Your task to perform on an android device: How much does a 3 bedroom apartment rent for in Austin? Image 0: 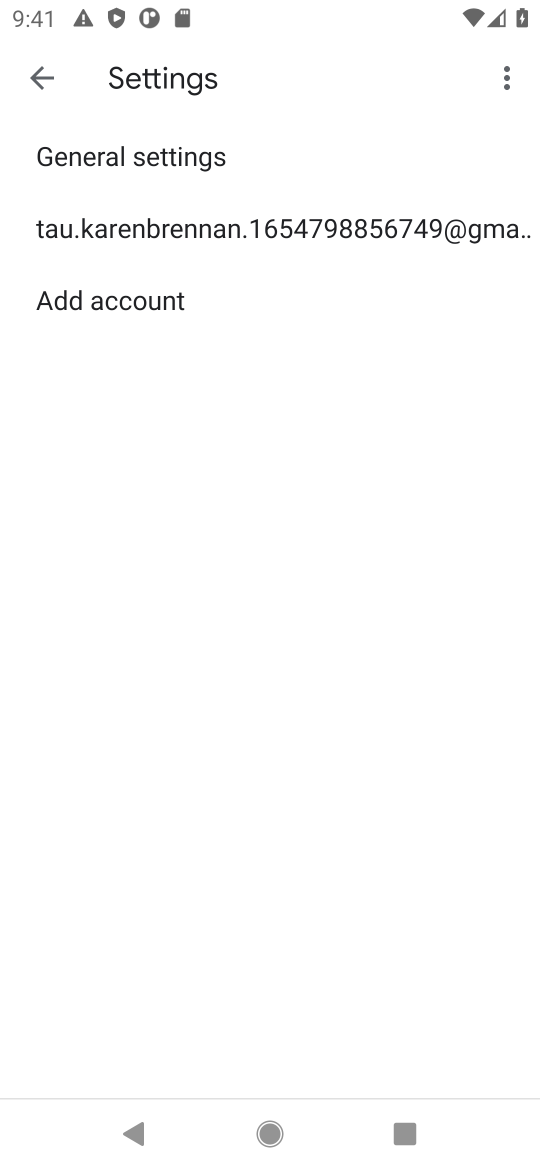
Step 0: press home button
Your task to perform on an android device: How much does a 3 bedroom apartment rent for in Austin? Image 1: 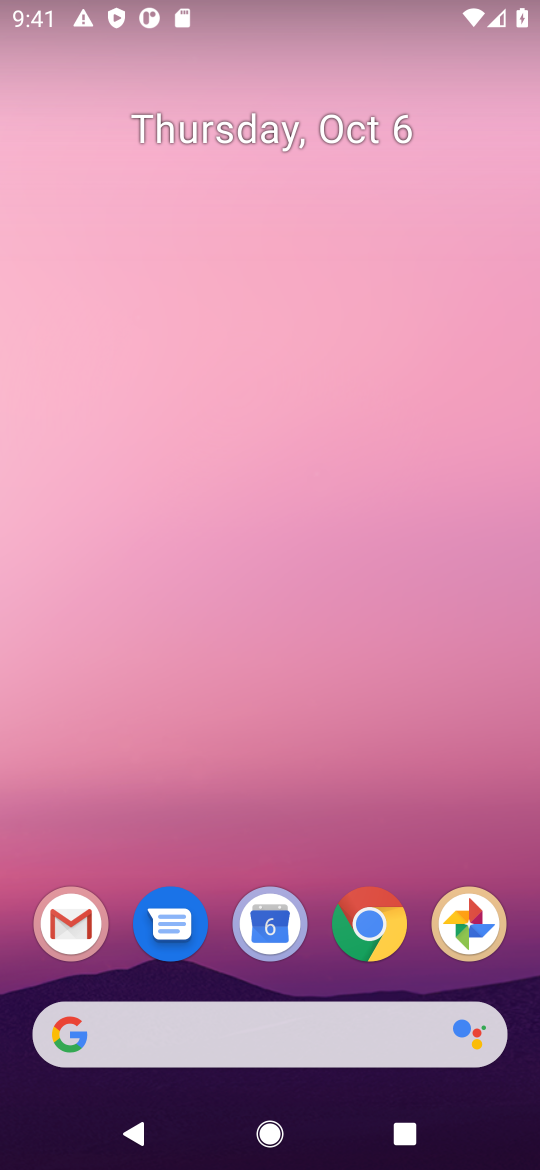
Step 1: click (378, 918)
Your task to perform on an android device: How much does a 3 bedroom apartment rent for in Austin? Image 2: 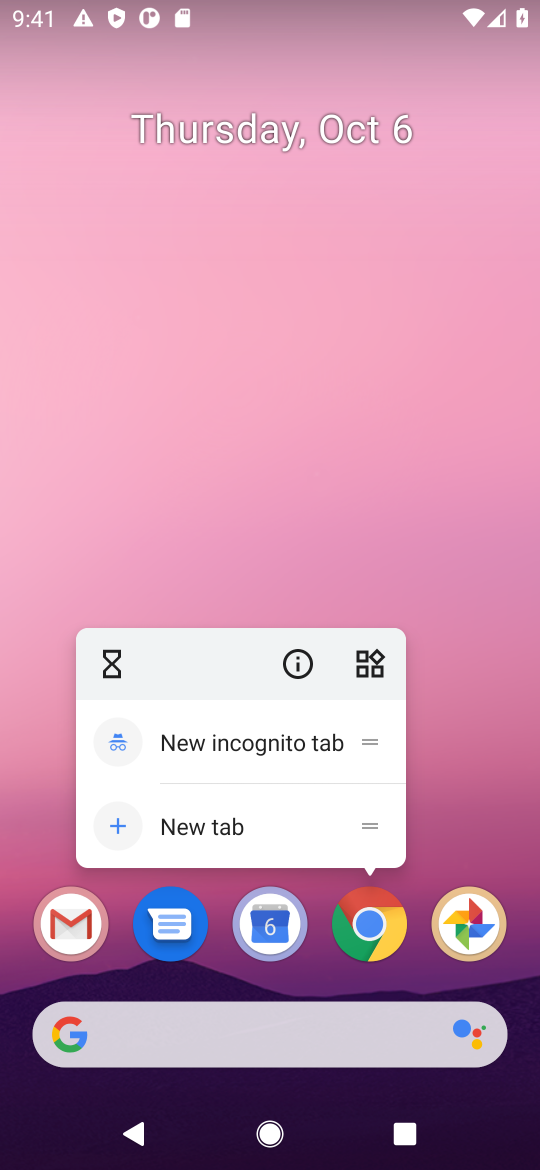
Step 2: click (370, 933)
Your task to perform on an android device: How much does a 3 bedroom apartment rent for in Austin? Image 3: 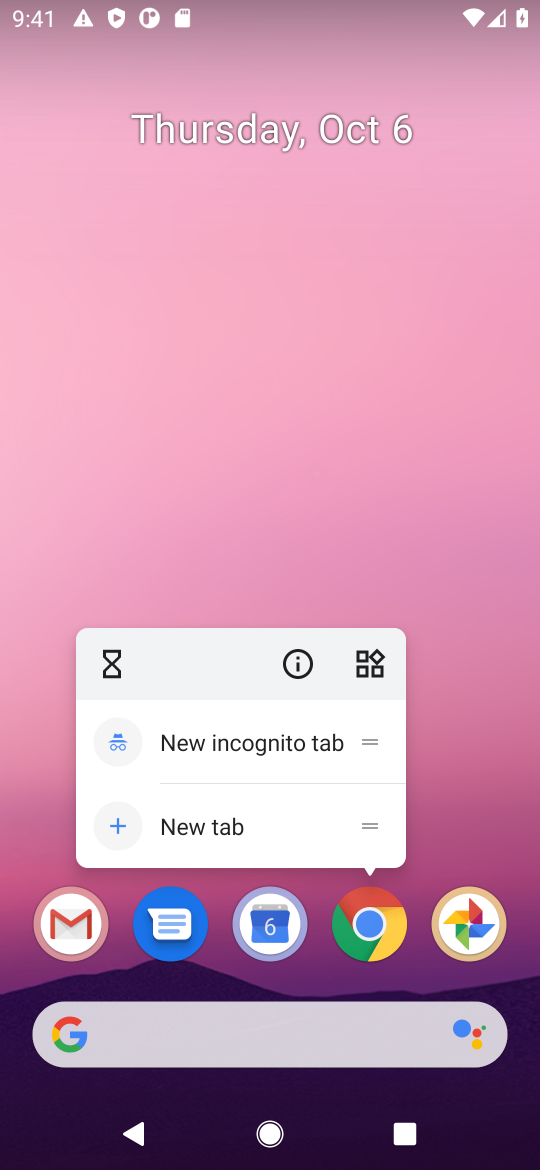
Step 3: click (370, 933)
Your task to perform on an android device: How much does a 3 bedroom apartment rent for in Austin? Image 4: 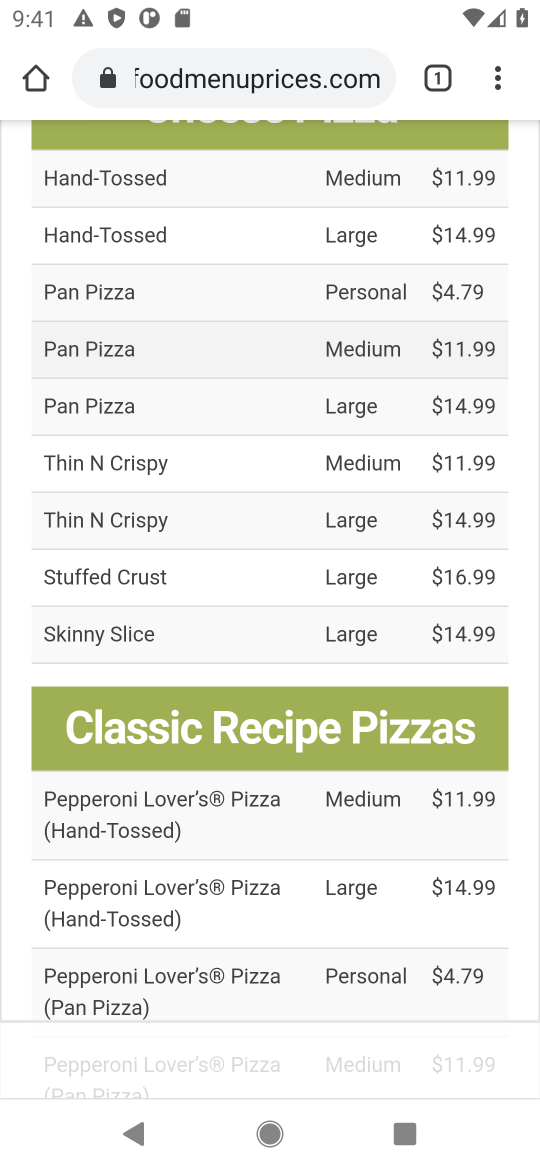
Step 4: click (357, 881)
Your task to perform on an android device: How much does a 3 bedroom apartment rent for in Austin? Image 5: 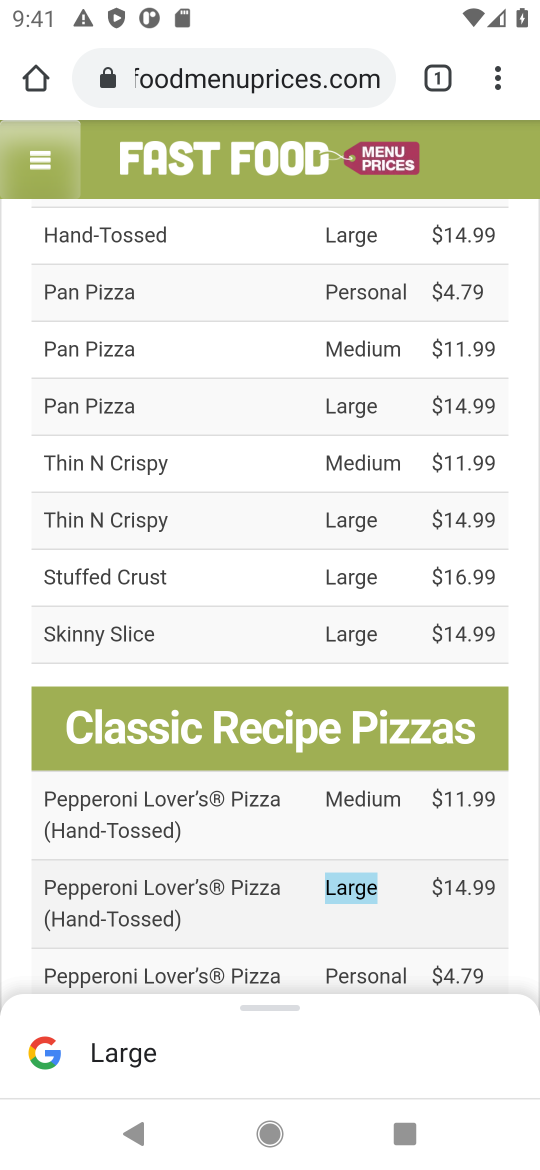
Step 5: click (288, 81)
Your task to perform on an android device: How much does a 3 bedroom apartment rent for in Austin? Image 6: 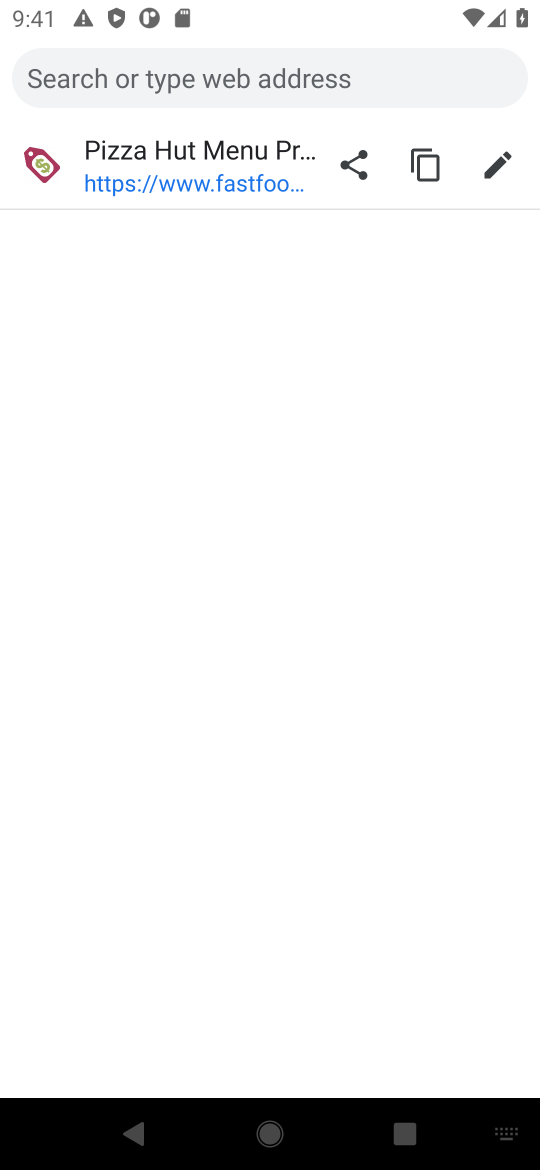
Step 6: type "3 bedroom apartment rent for in Austin"
Your task to perform on an android device: How much does a 3 bedroom apartment rent for in Austin? Image 7: 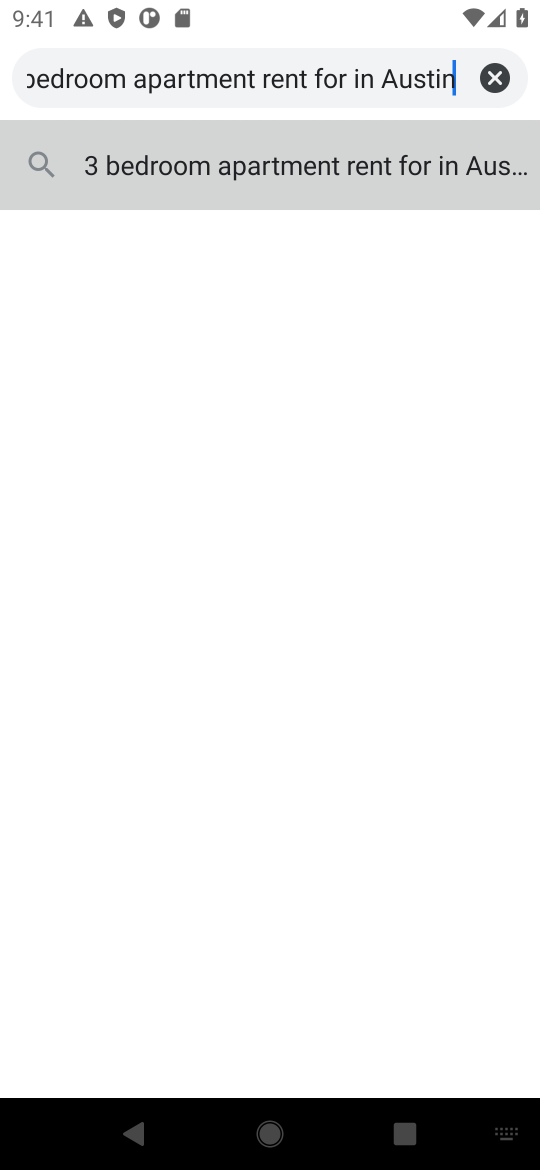
Step 7: click (392, 163)
Your task to perform on an android device: How much does a 3 bedroom apartment rent for in Austin? Image 8: 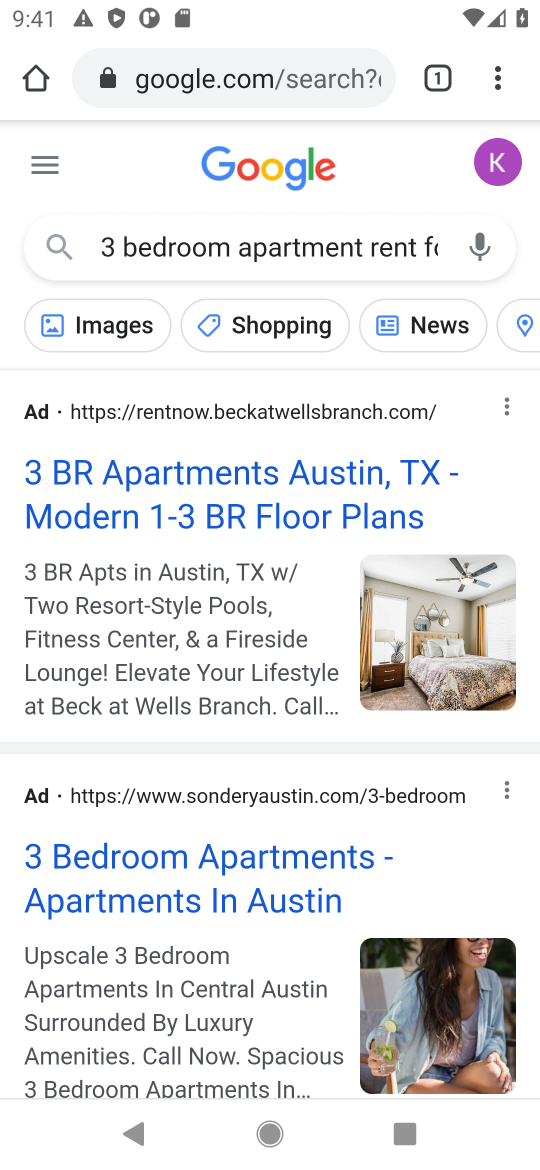
Step 8: click (172, 893)
Your task to perform on an android device: How much does a 3 bedroom apartment rent for in Austin? Image 9: 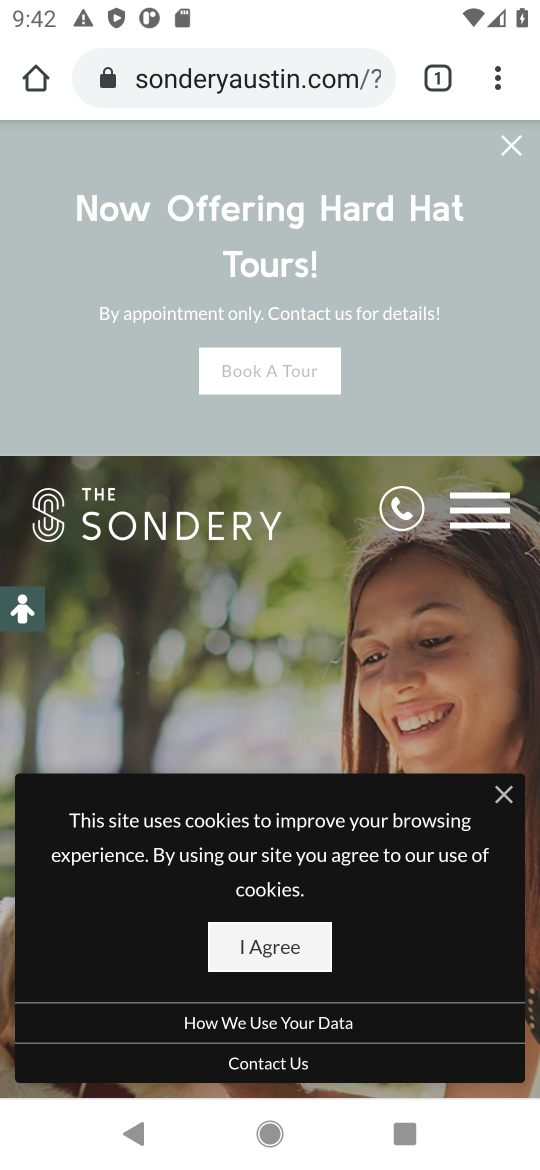
Step 9: drag from (167, 926) to (392, 648)
Your task to perform on an android device: How much does a 3 bedroom apartment rent for in Austin? Image 10: 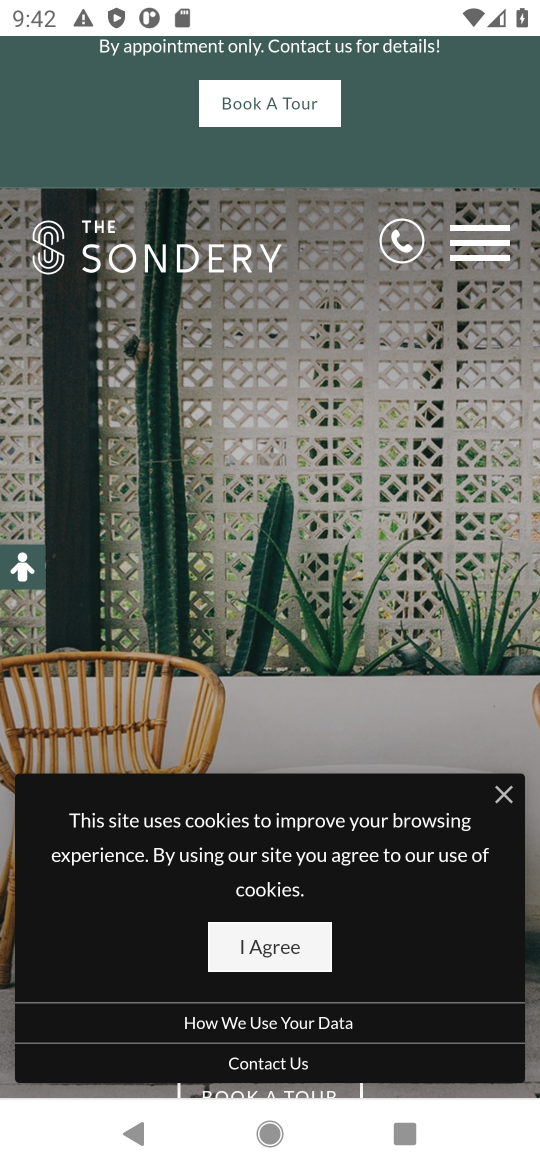
Step 10: click (292, 945)
Your task to perform on an android device: How much does a 3 bedroom apartment rent for in Austin? Image 11: 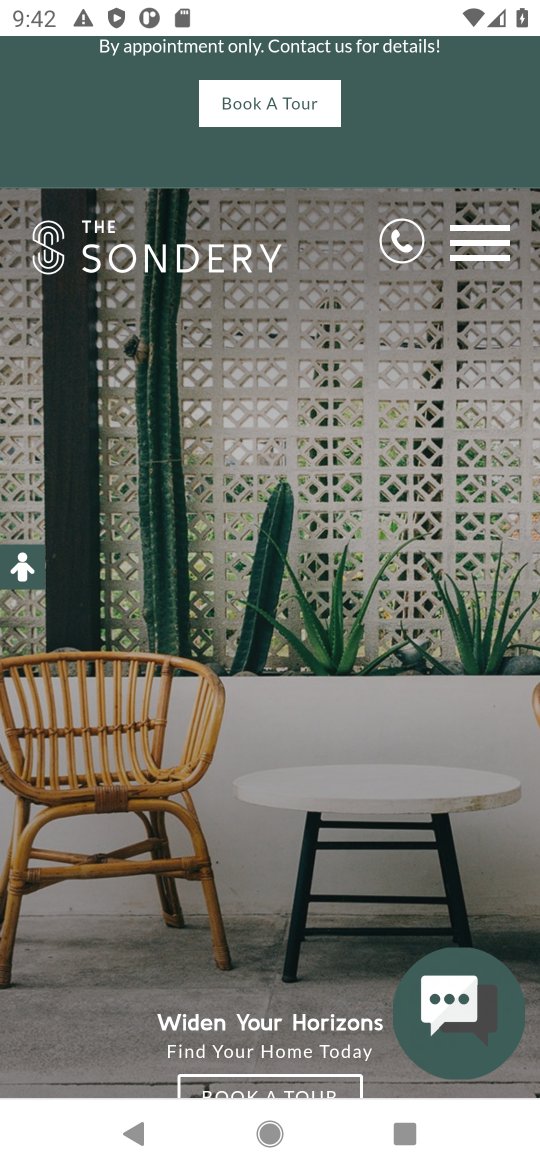
Step 11: task complete